Your task to perform on an android device: turn off picture-in-picture Image 0: 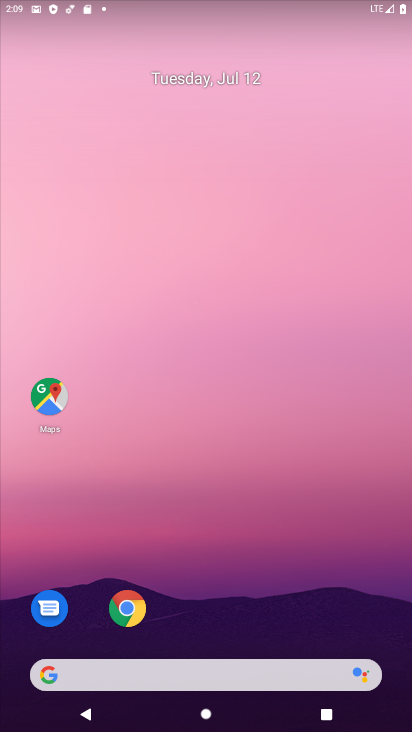
Step 0: drag from (181, 578) to (230, 195)
Your task to perform on an android device: turn off picture-in-picture Image 1: 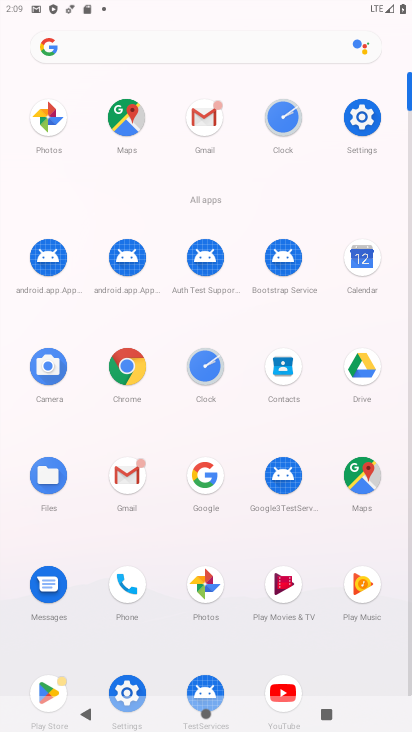
Step 1: click (356, 132)
Your task to perform on an android device: turn off picture-in-picture Image 2: 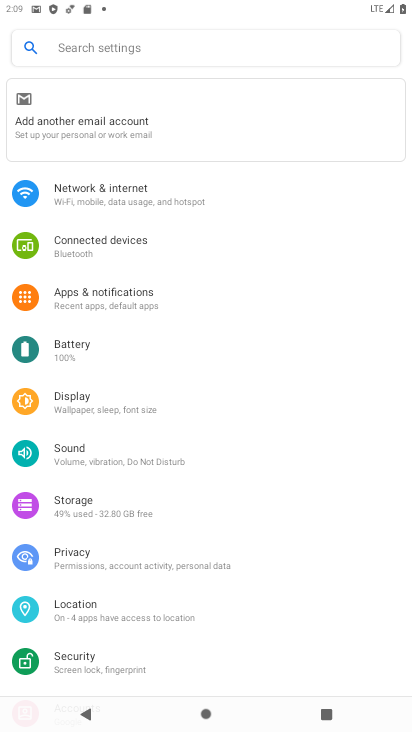
Step 2: click (126, 305)
Your task to perform on an android device: turn off picture-in-picture Image 3: 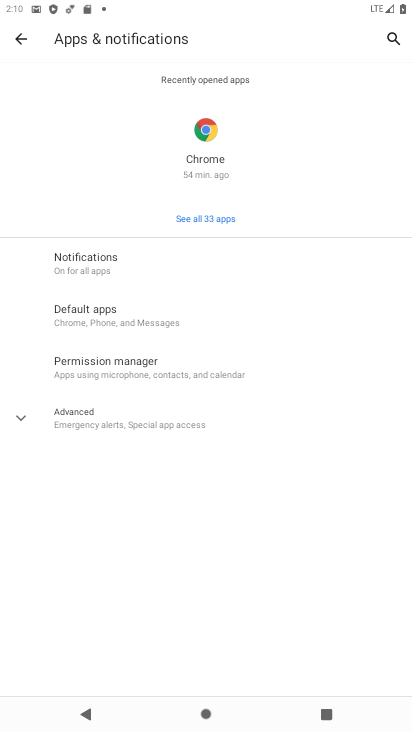
Step 3: click (81, 419)
Your task to perform on an android device: turn off picture-in-picture Image 4: 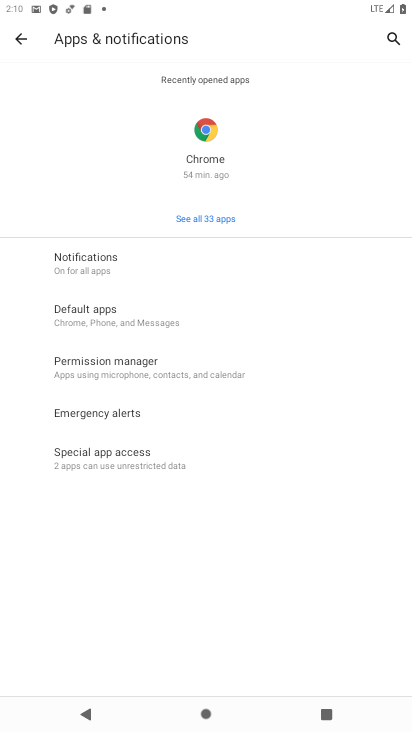
Step 4: click (87, 461)
Your task to perform on an android device: turn off picture-in-picture Image 5: 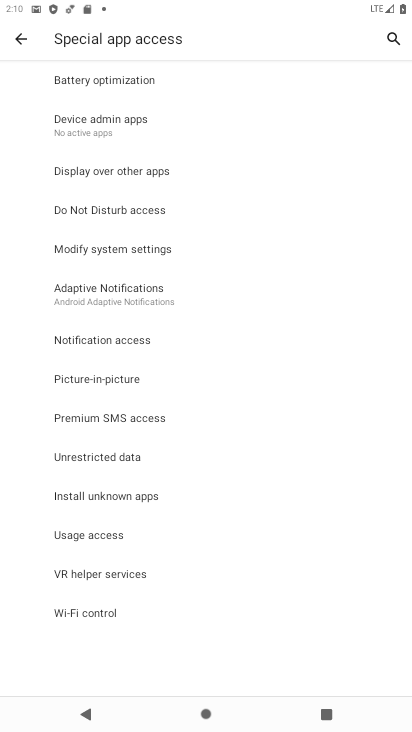
Step 5: click (115, 382)
Your task to perform on an android device: turn off picture-in-picture Image 6: 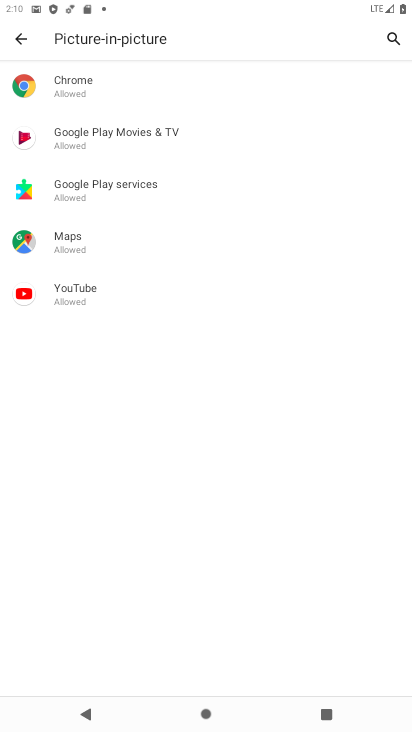
Step 6: click (56, 83)
Your task to perform on an android device: turn off picture-in-picture Image 7: 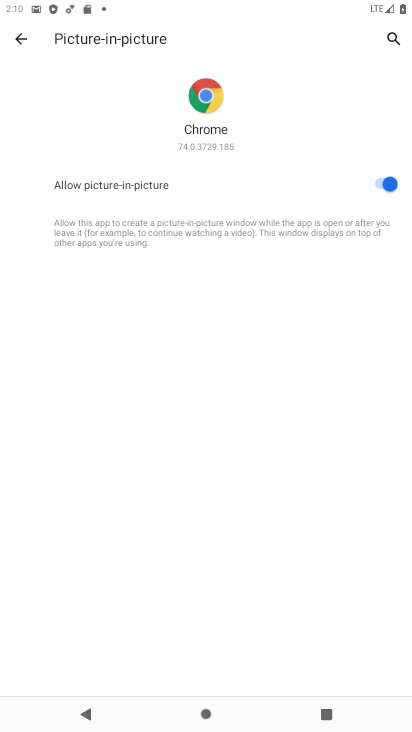
Step 7: click (379, 179)
Your task to perform on an android device: turn off picture-in-picture Image 8: 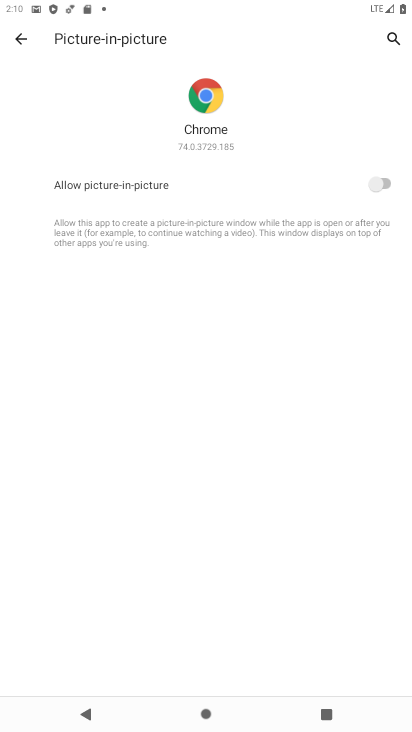
Step 8: task complete